Your task to perform on an android device: When is my next appointment? Image 0: 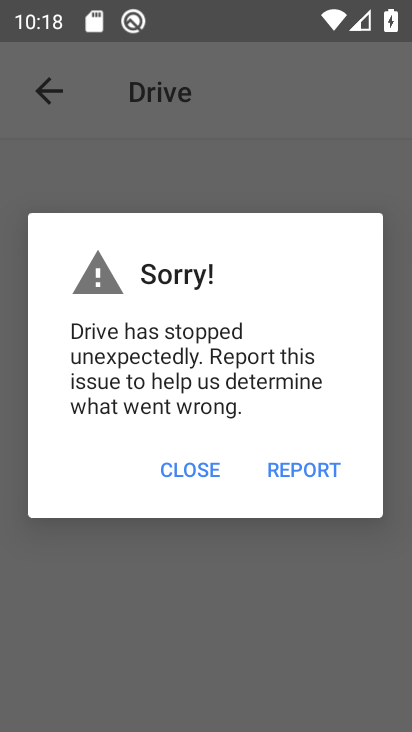
Step 0: press home button
Your task to perform on an android device: When is my next appointment? Image 1: 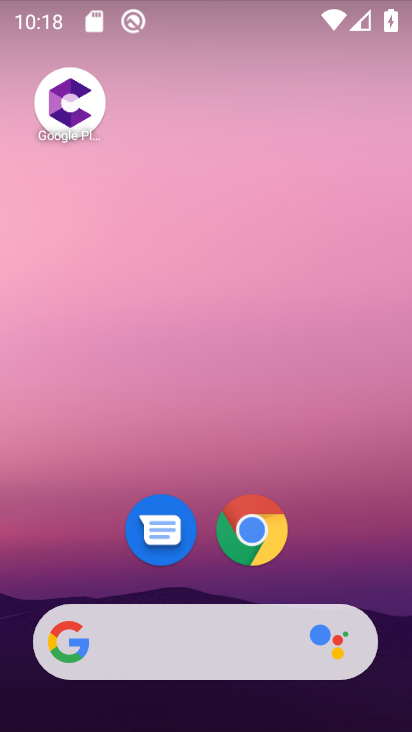
Step 1: drag from (209, 618) to (205, 5)
Your task to perform on an android device: When is my next appointment? Image 2: 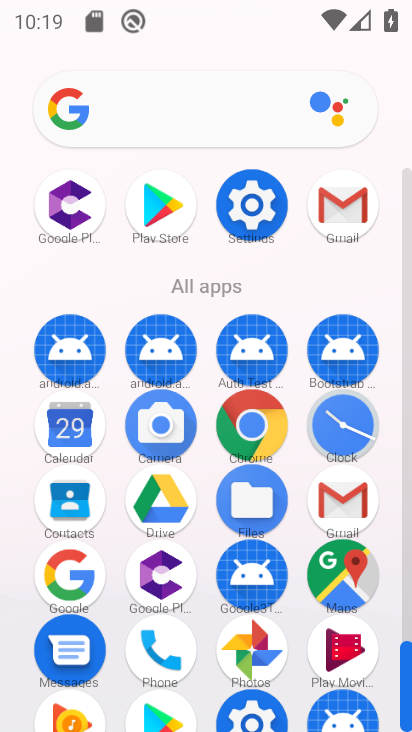
Step 2: click (84, 444)
Your task to perform on an android device: When is my next appointment? Image 3: 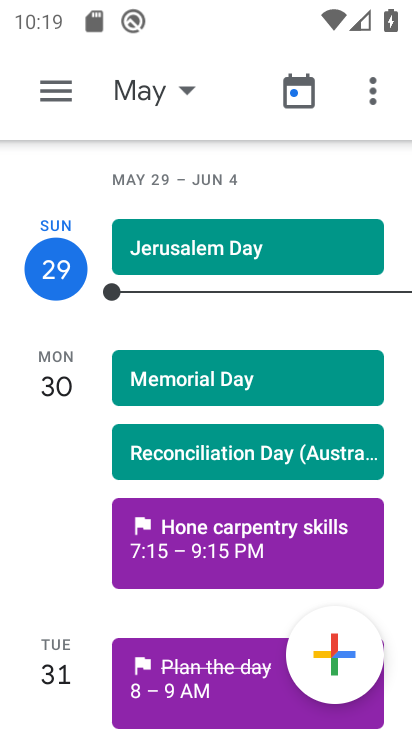
Step 3: task complete